Your task to perform on an android device: Open the calendar app, open the side menu, and click the "Day" option Image 0: 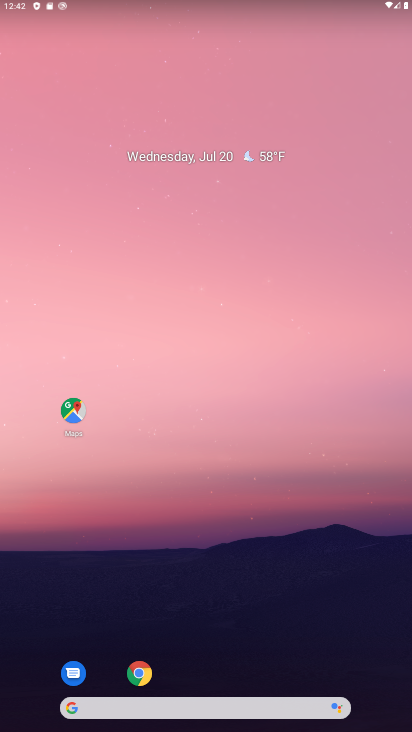
Step 0: drag from (310, 608) to (228, 221)
Your task to perform on an android device: Open the calendar app, open the side menu, and click the "Day" option Image 1: 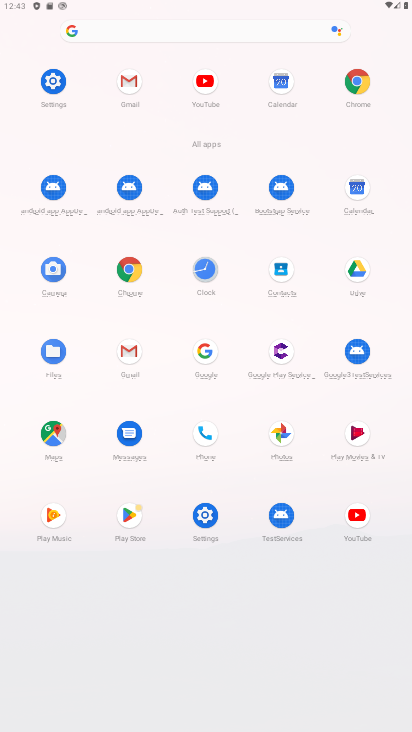
Step 1: click (352, 180)
Your task to perform on an android device: Open the calendar app, open the side menu, and click the "Day" option Image 2: 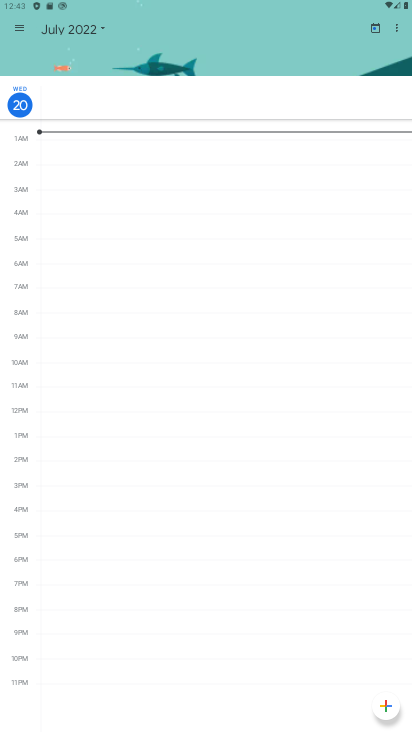
Step 2: click (10, 30)
Your task to perform on an android device: Open the calendar app, open the side menu, and click the "Day" option Image 3: 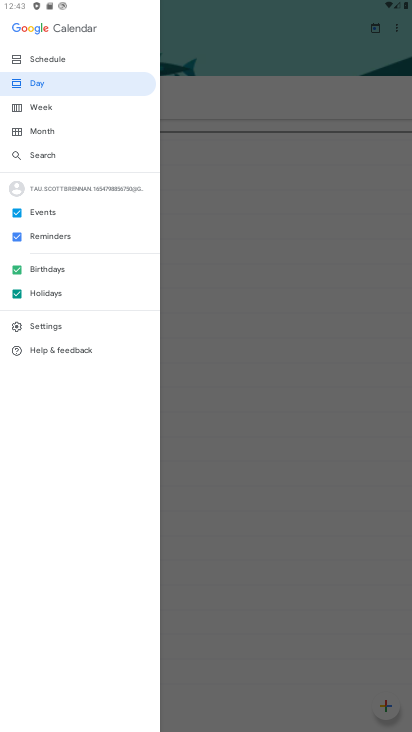
Step 3: click (78, 83)
Your task to perform on an android device: Open the calendar app, open the side menu, and click the "Day" option Image 4: 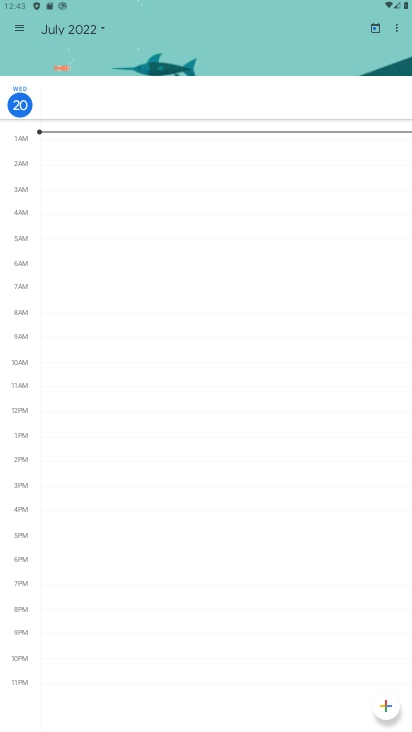
Step 4: task complete